Your task to perform on an android device: turn off picture-in-picture Image 0: 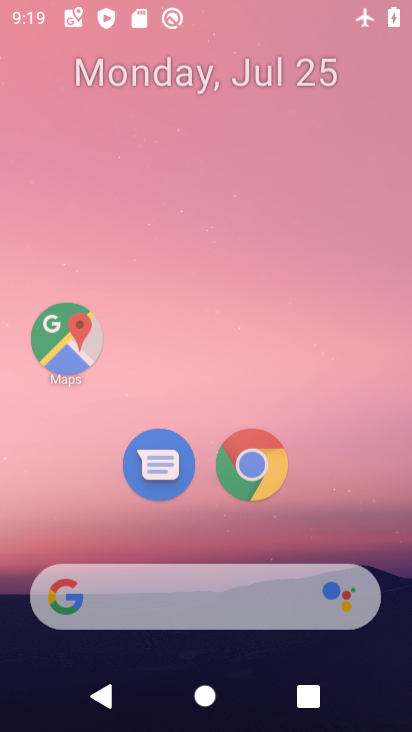
Step 0: drag from (183, 523) to (296, 73)
Your task to perform on an android device: turn off picture-in-picture Image 1: 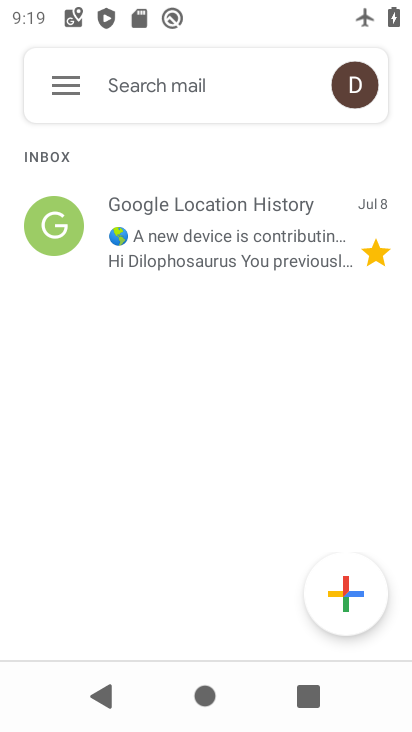
Step 1: press back button
Your task to perform on an android device: turn off picture-in-picture Image 2: 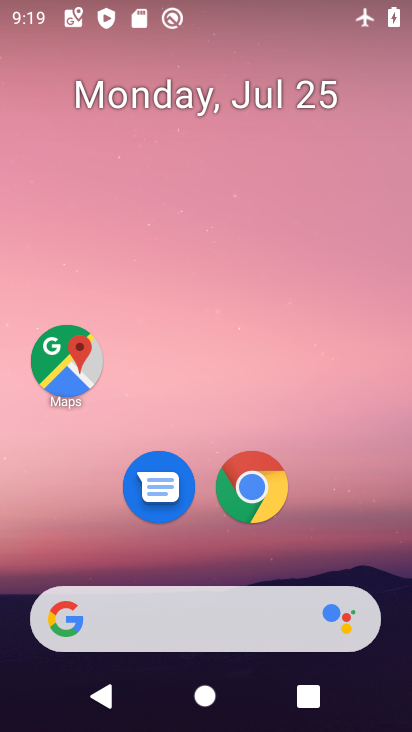
Step 2: drag from (188, 517) to (243, 8)
Your task to perform on an android device: turn off picture-in-picture Image 3: 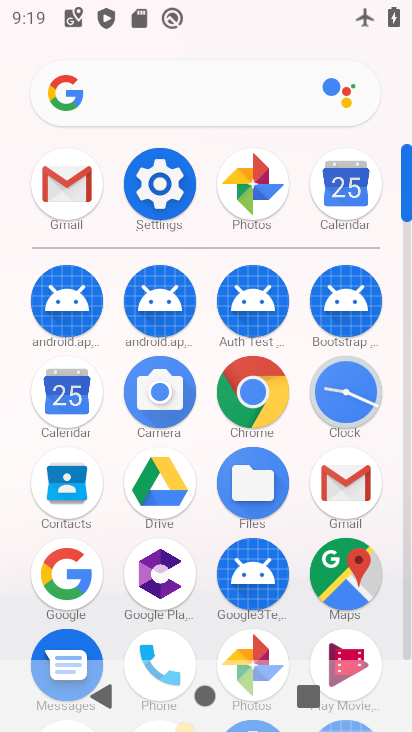
Step 3: click (144, 177)
Your task to perform on an android device: turn off picture-in-picture Image 4: 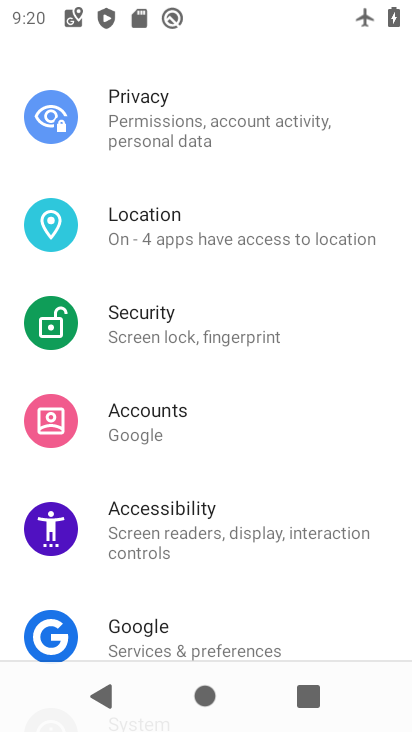
Step 4: drag from (322, 185) to (240, 552)
Your task to perform on an android device: turn off picture-in-picture Image 5: 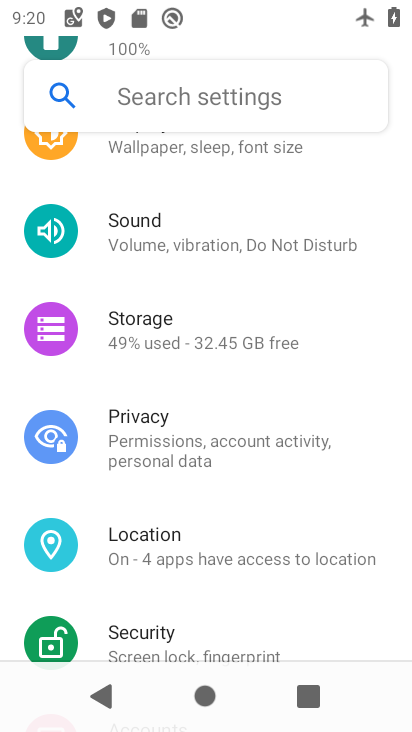
Step 5: drag from (256, 215) to (195, 675)
Your task to perform on an android device: turn off picture-in-picture Image 6: 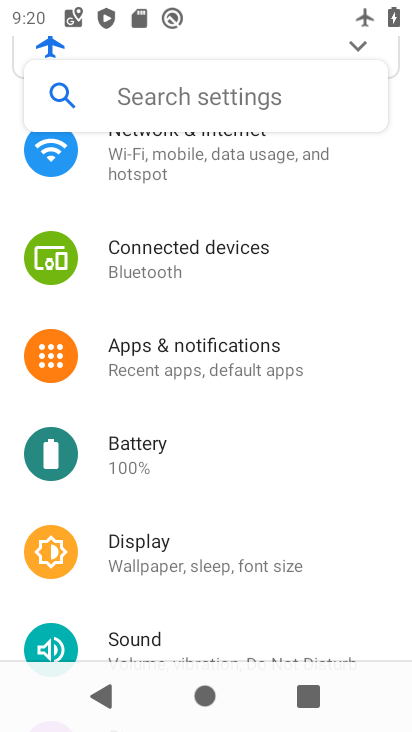
Step 6: click (180, 358)
Your task to perform on an android device: turn off picture-in-picture Image 7: 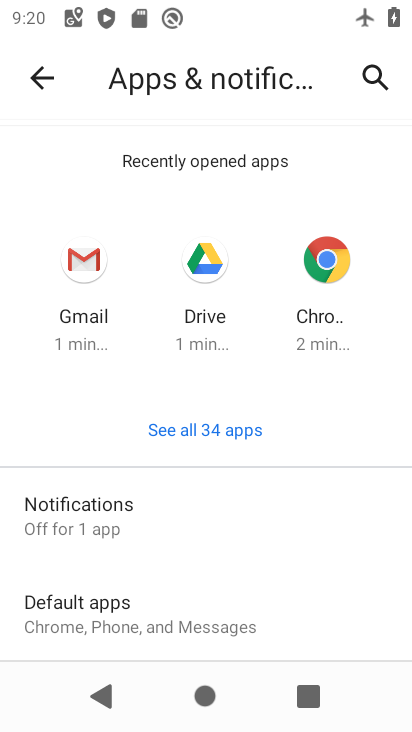
Step 7: click (132, 521)
Your task to perform on an android device: turn off picture-in-picture Image 8: 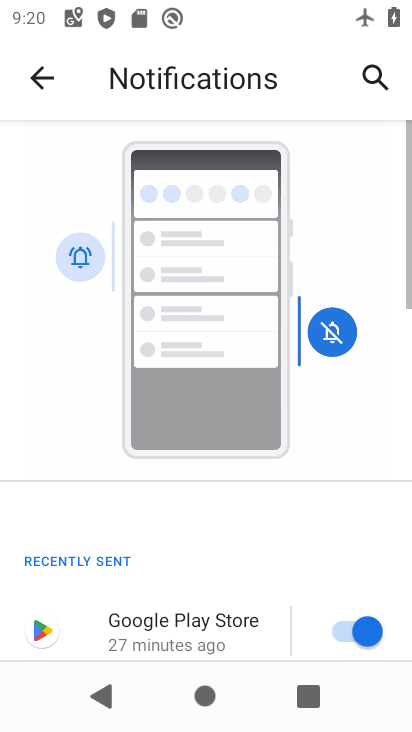
Step 8: drag from (127, 568) to (303, 97)
Your task to perform on an android device: turn off picture-in-picture Image 9: 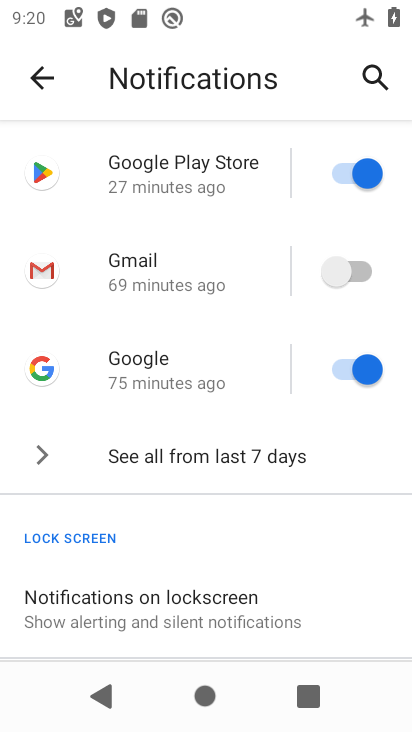
Step 9: drag from (181, 560) to (277, 152)
Your task to perform on an android device: turn off picture-in-picture Image 10: 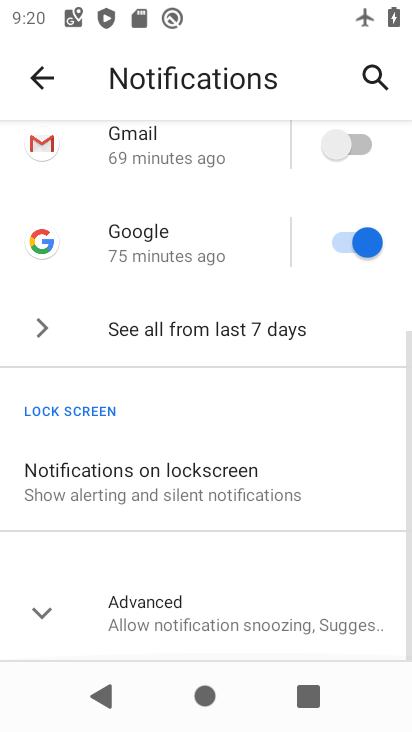
Step 10: click (165, 602)
Your task to perform on an android device: turn off picture-in-picture Image 11: 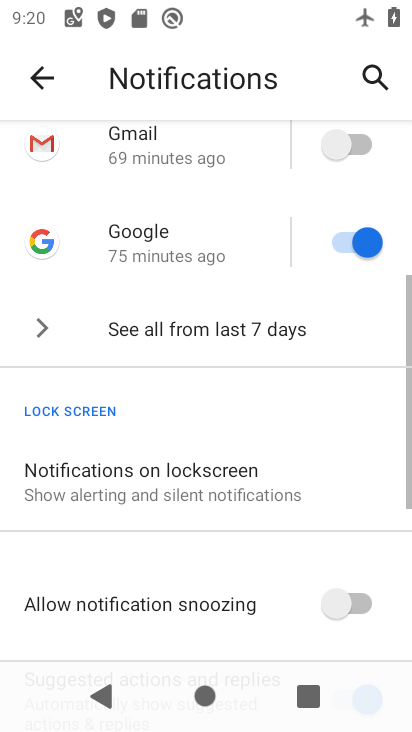
Step 11: drag from (173, 581) to (295, 1)
Your task to perform on an android device: turn off picture-in-picture Image 12: 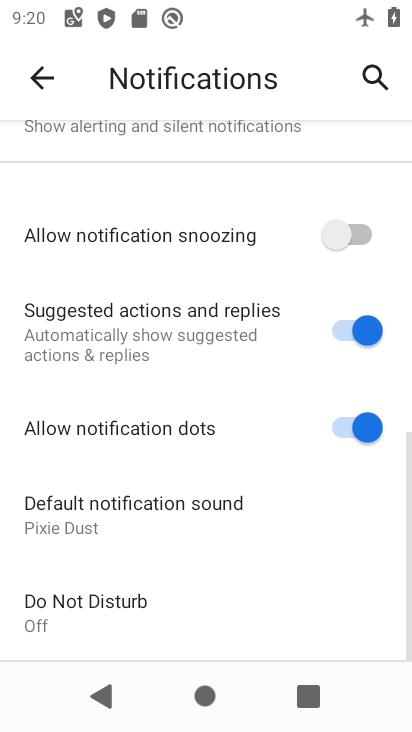
Step 12: drag from (171, 569) to (300, 15)
Your task to perform on an android device: turn off picture-in-picture Image 13: 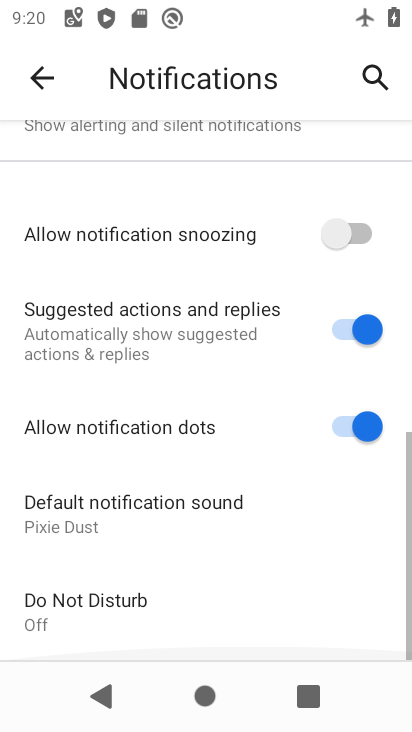
Step 13: click (29, 79)
Your task to perform on an android device: turn off picture-in-picture Image 14: 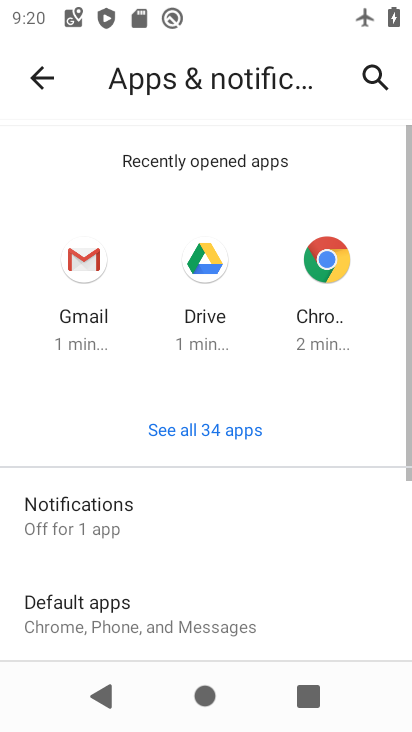
Step 14: drag from (189, 586) to (285, 34)
Your task to perform on an android device: turn off picture-in-picture Image 15: 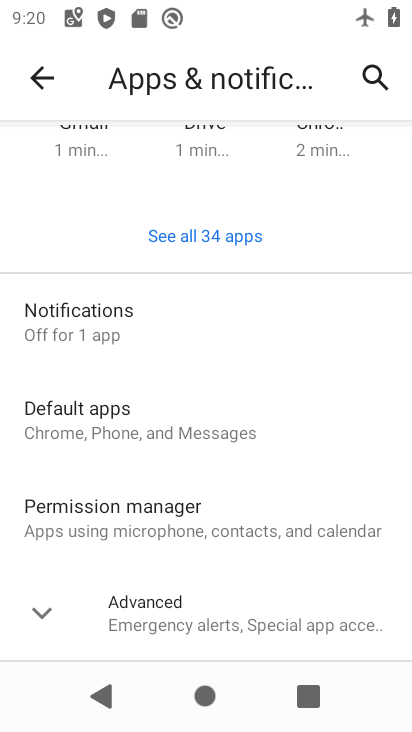
Step 15: click (175, 622)
Your task to perform on an android device: turn off picture-in-picture Image 16: 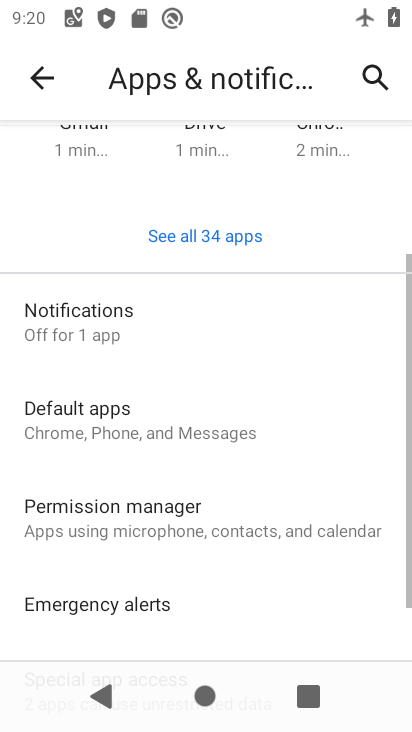
Step 16: drag from (176, 612) to (277, 26)
Your task to perform on an android device: turn off picture-in-picture Image 17: 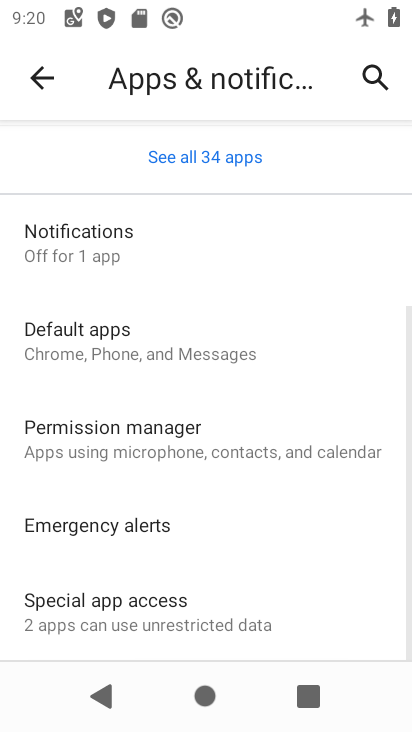
Step 17: click (107, 602)
Your task to perform on an android device: turn off picture-in-picture Image 18: 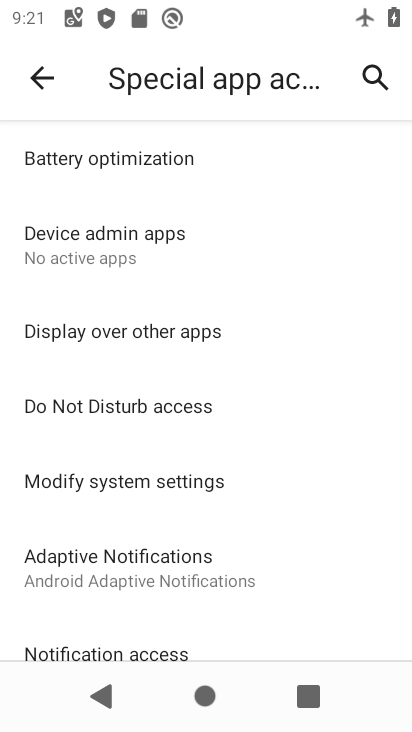
Step 18: drag from (124, 616) to (247, 115)
Your task to perform on an android device: turn off picture-in-picture Image 19: 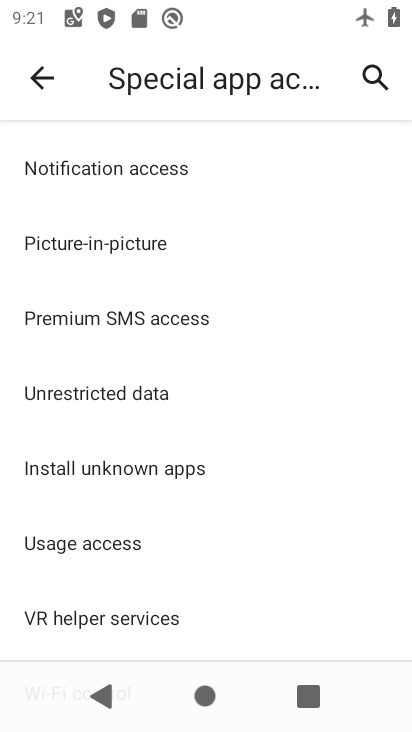
Step 19: click (105, 247)
Your task to perform on an android device: turn off picture-in-picture Image 20: 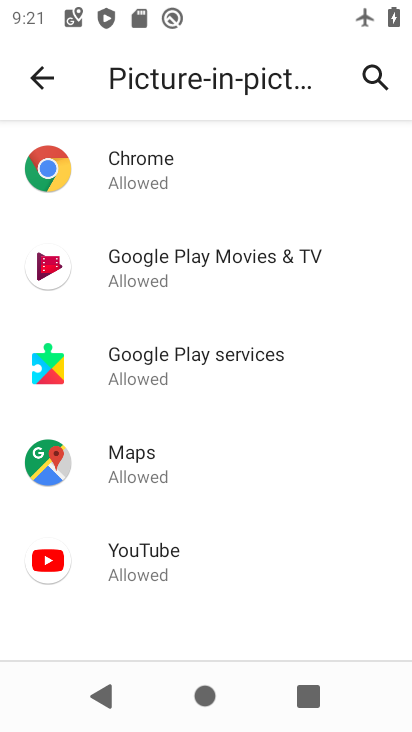
Step 20: click (183, 183)
Your task to perform on an android device: turn off picture-in-picture Image 21: 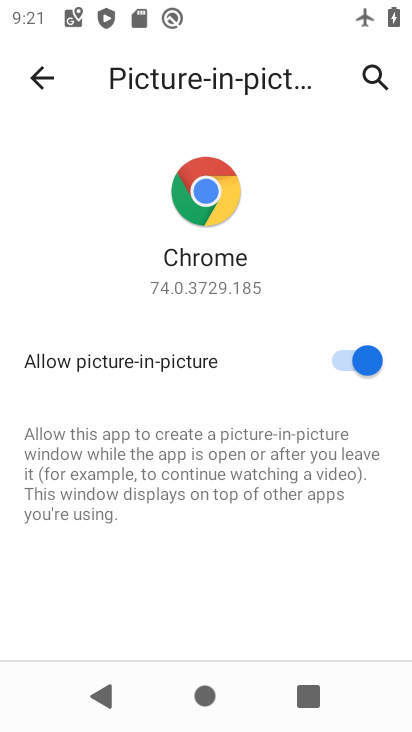
Step 21: click (353, 359)
Your task to perform on an android device: turn off picture-in-picture Image 22: 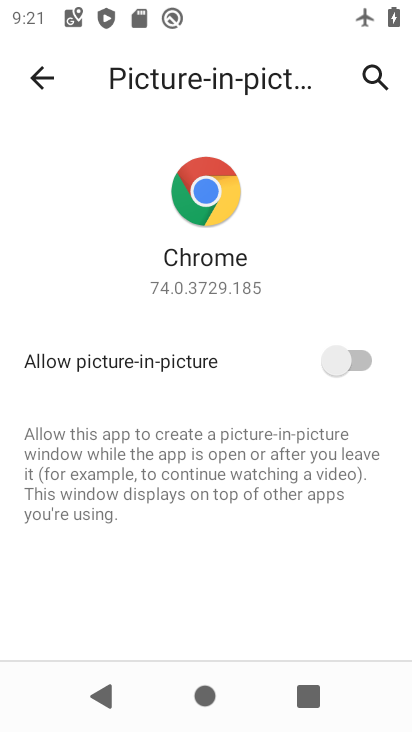
Step 22: task complete